Your task to perform on an android device: see tabs open on other devices in the chrome app Image 0: 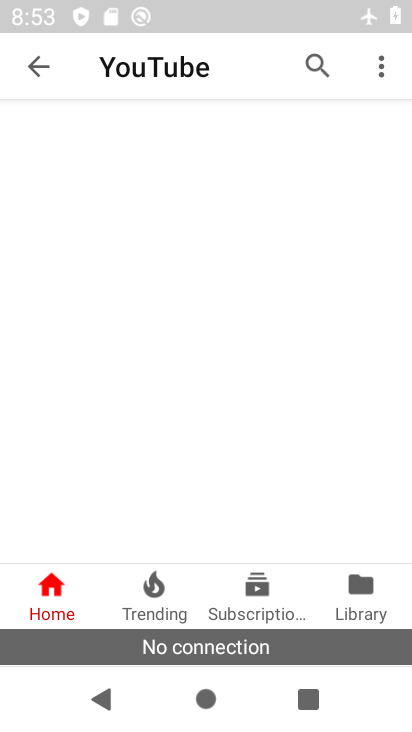
Step 0: drag from (191, 600) to (202, 277)
Your task to perform on an android device: see tabs open on other devices in the chrome app Image 1: 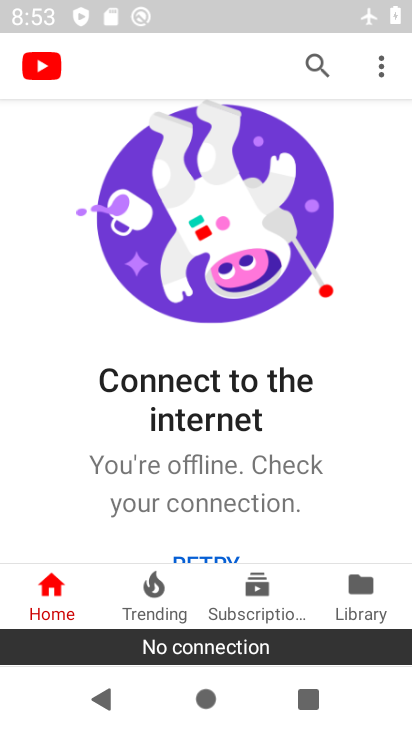
Step 1: press home button
Your task to perform on an android device: see tabs open on other devices in the chrome app Image 2: 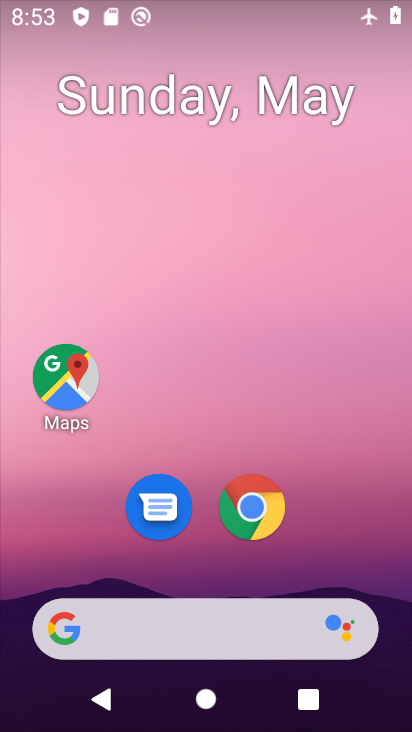
Step 2: click (264, 525)
Your task to perform on an android device: see tabs open on other devices in the chrome app Image 3: 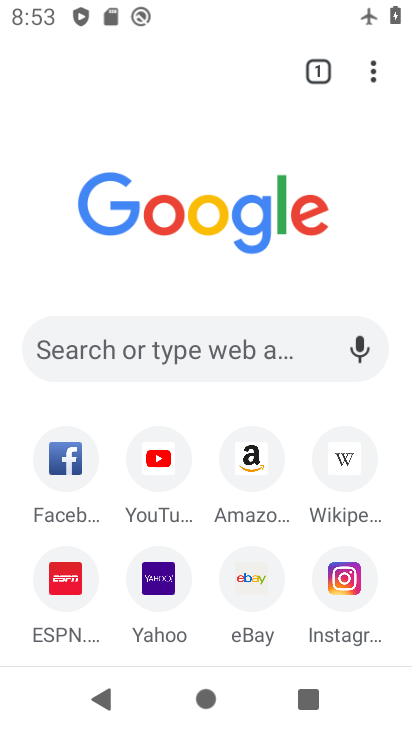
Step 3: click (372, 76)
Your task to perform on an android device: see tabs open on other devices in the chrome app Image 4: 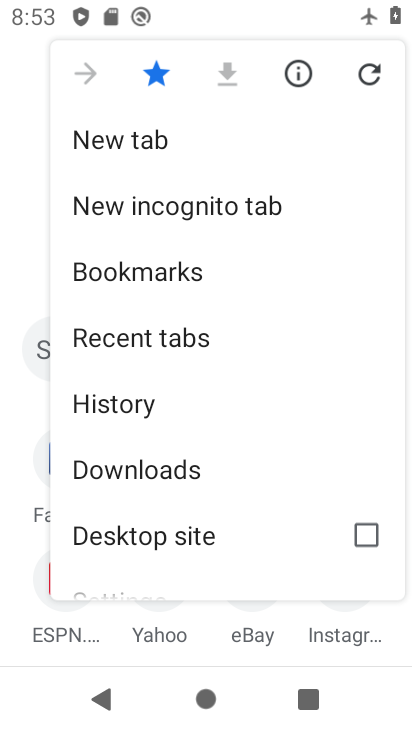
Step 4: click (145, 335)
Your task to perform on an android device: see tabs open on other devices in the chrome app Image 5: 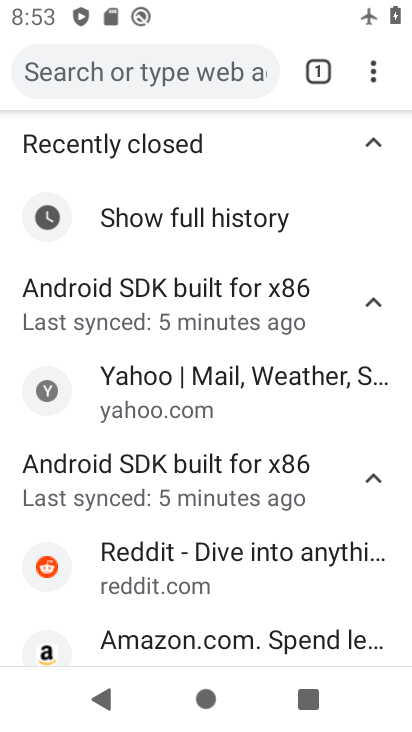
Step 5: task complete